Your task to perform on an android device: turn on javascript in the chrome app Image 0: 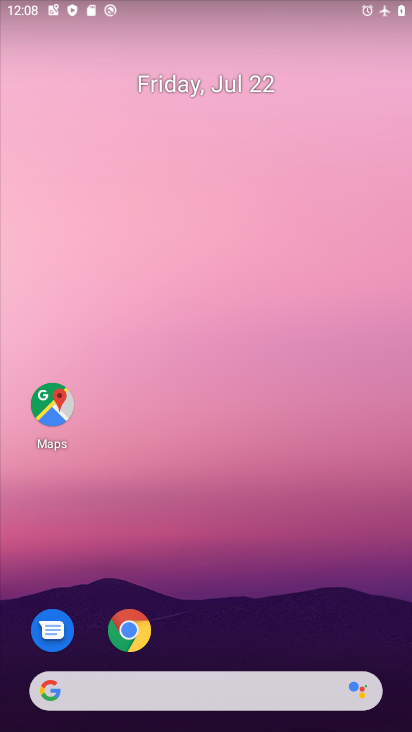
Step 0: click (139, 641)
Your task to perform on an android device: turn on javascript in the chrome app Image 1: 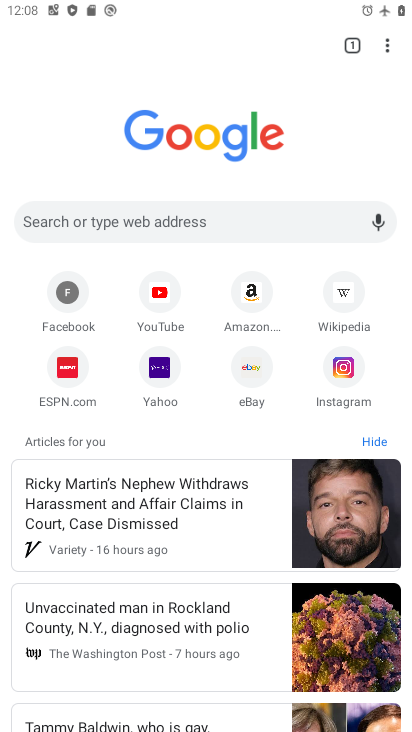
Step 1: click (385, 48)
Your task to perform on an android device: turn on javascript in the chrome app Image 2: 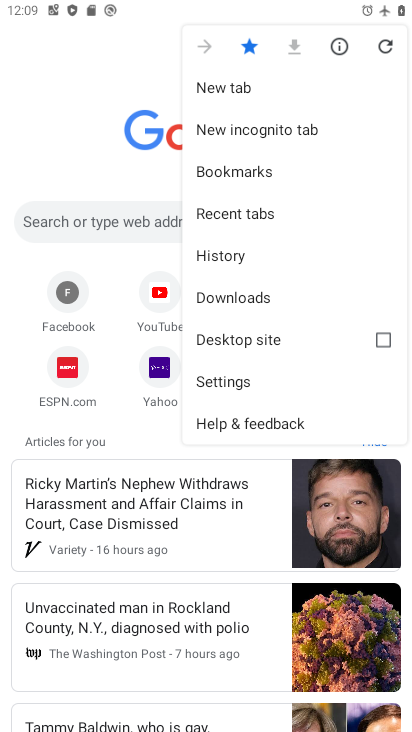
Step 2: click (238, 383)
Your task to perform on an android device: turn on javascript in the chrome app Image 3: 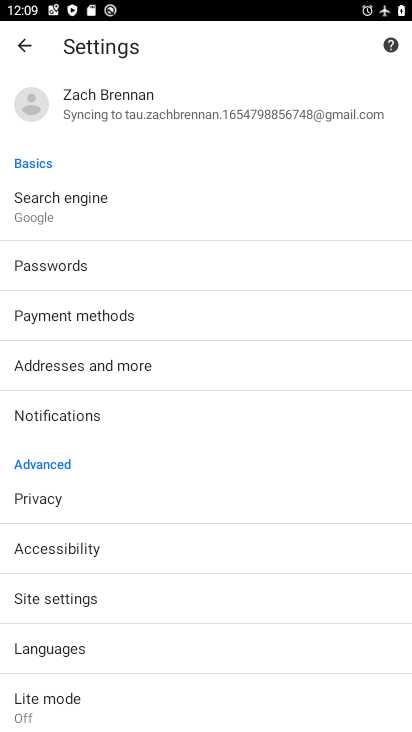
Step 3: click (45, 595)
Your task to perform on an android device: turn on javascript in the chrome app Image 4: 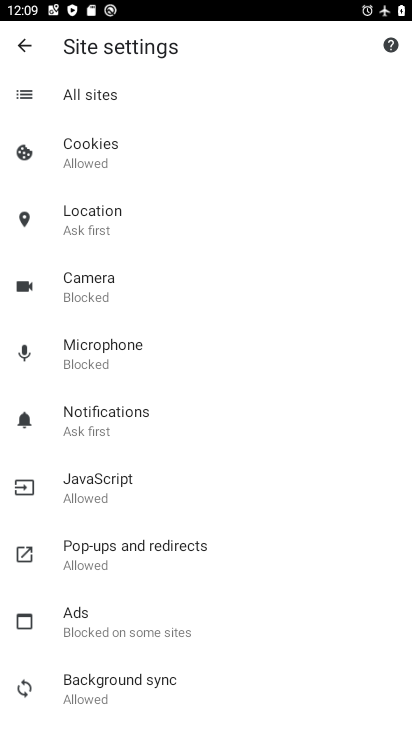
Step 4: click (132, 490)
Your task to perform on an android device: turn on javascript in the chrome app Image 5: 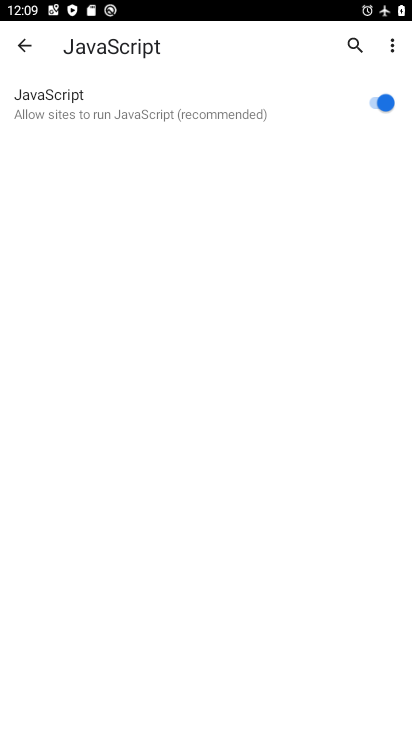
Step 5: task complete